Your task to perform on an android device: turn off priority inbox in the gmail app Image 0: 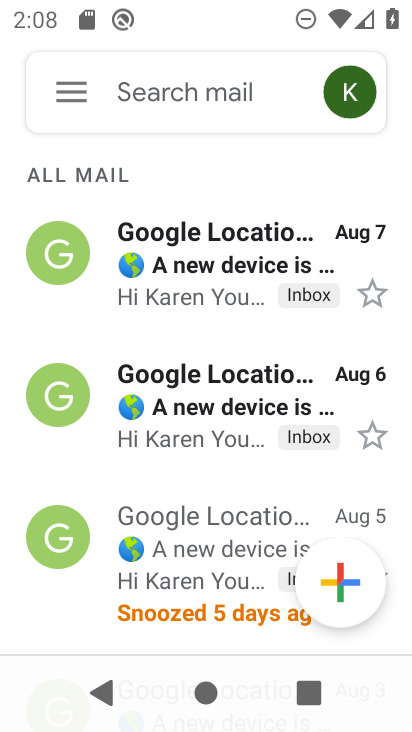
Step 0: press home button
Your task to perform on an android device: turn off priority inbox in the gmail app Image 1: 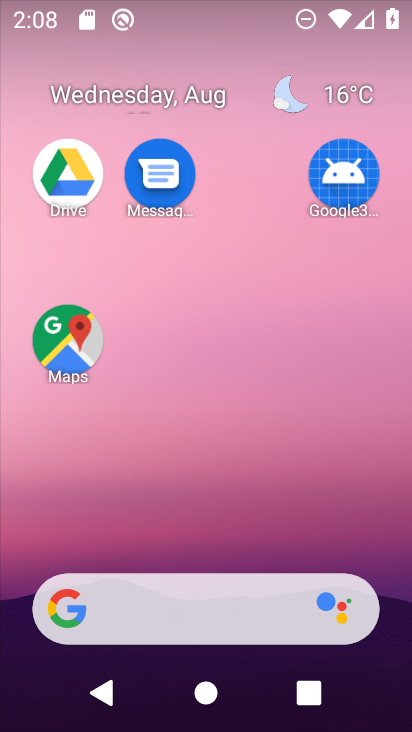
Step 1: drag from (209, 547) to (210, 87)
Your task to perform on an android device: turn off priority inbox in the gmail app Image 2: 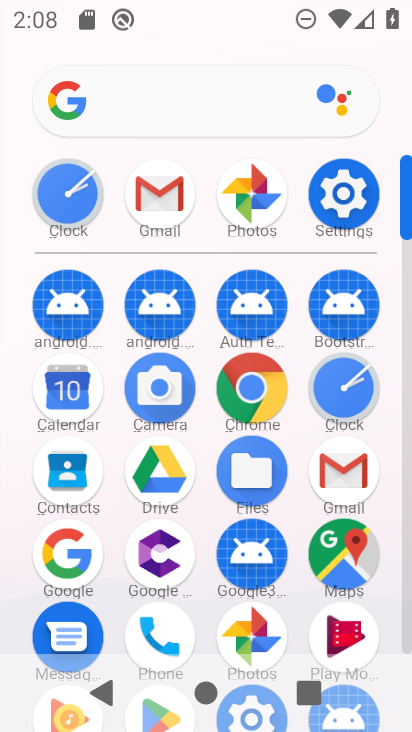
Step 2: click (160, 208)
Your task to perform on an android device: turn off priority inbox in the gmail app Image 3: 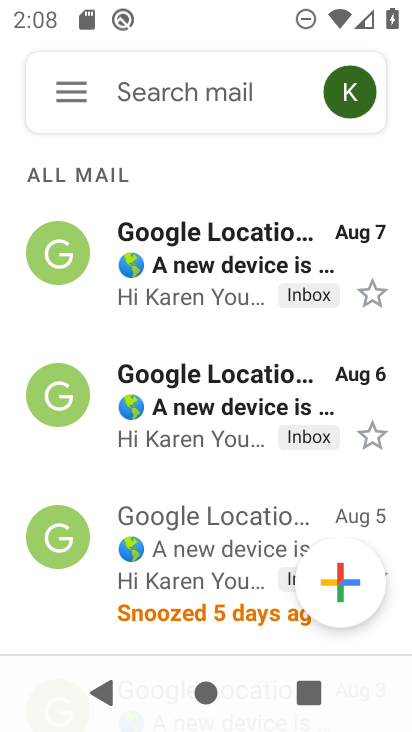
Step 3: click (70, 102)
Your task to perform on an android device: turn off priority inbox in the gmail app Image 4: 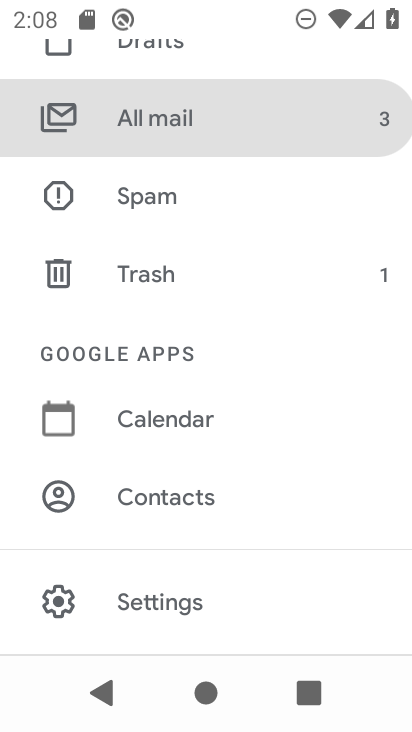
Step 4: click (192, 585)
Your task to perform on an android device: turn off priority inbox in the gmail app Image 5: 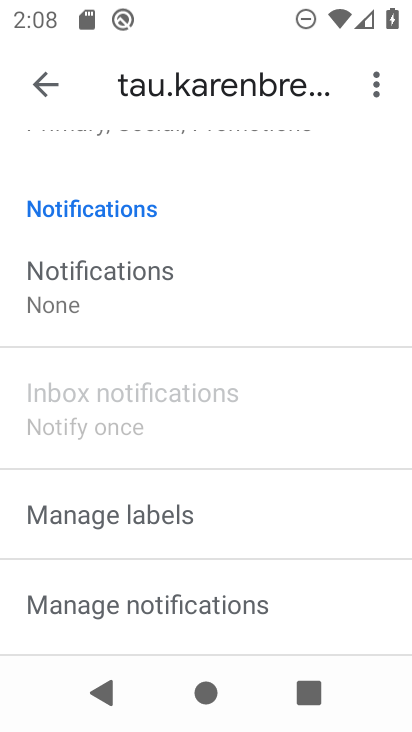
Step 5: drag from (262, 226) to (277, 594)
Your task to perform on an android device: turn off priority inbox in the gmail app Image 6: 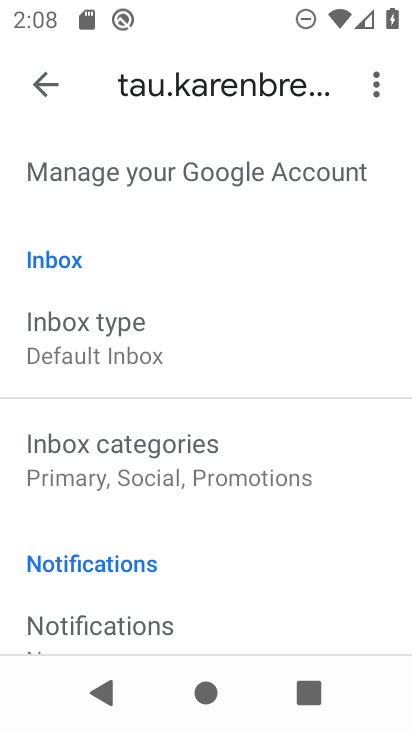
Step 6: click (149, 343)
Your task to perform on an android device: turn off priority inbox in the gmail app Image 7: 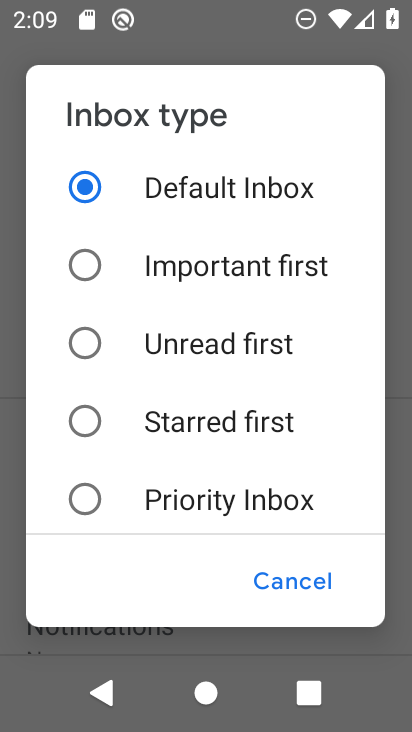
Step 7: task complete